Your task to perform on an android device: Search for Italian restaurants on Maps Image 0: 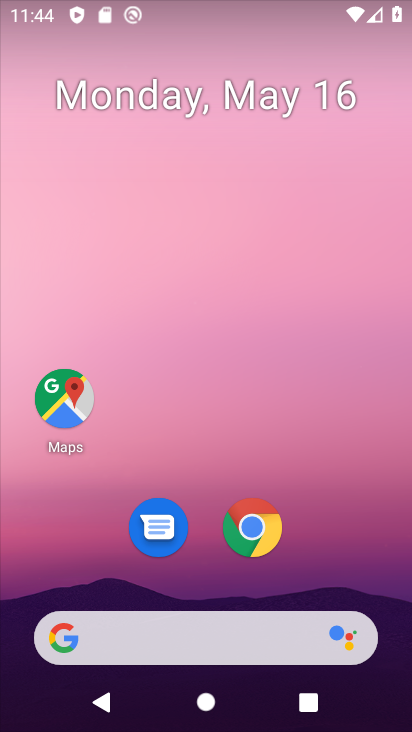
Step 0: press home button
Your task to perform on an android device: Search for Italian restaurants on Maps Image 1: 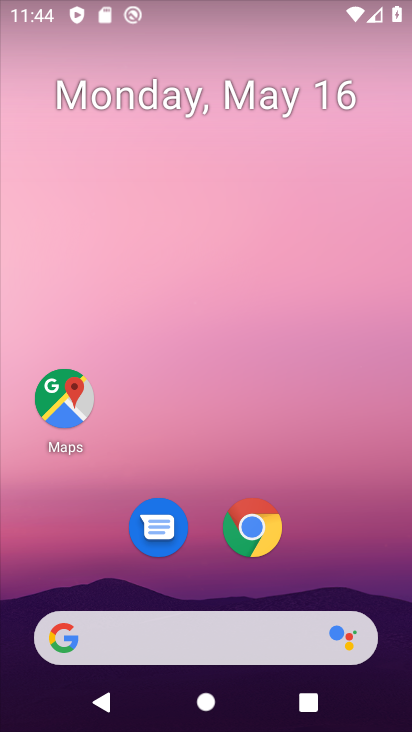
Step 1: click (52, 401)
Your task to perform on an android device: Search for Italian restaurants on Maps Image 2: 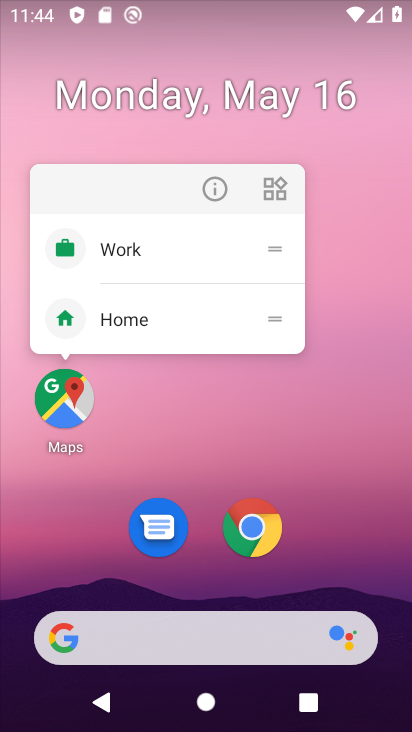
Step 2: click (65, 407)
Your task to perform on an android device: Search for Italian restaurants on Maps Image 3: 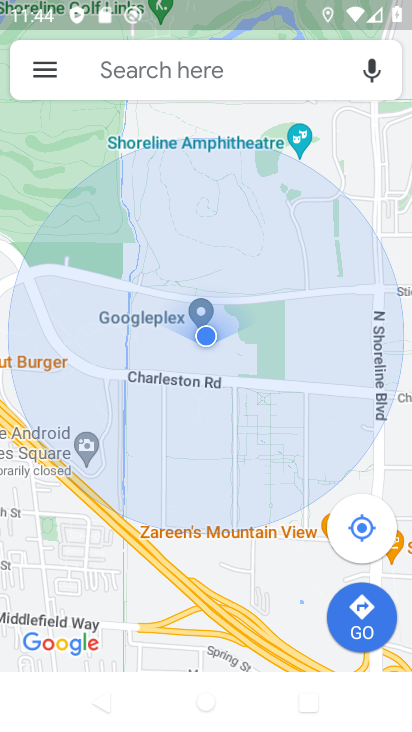
Step 3: click (213, 73)
Your task to perform on an android device: Search for Italian restaurants on Maps Image 4: 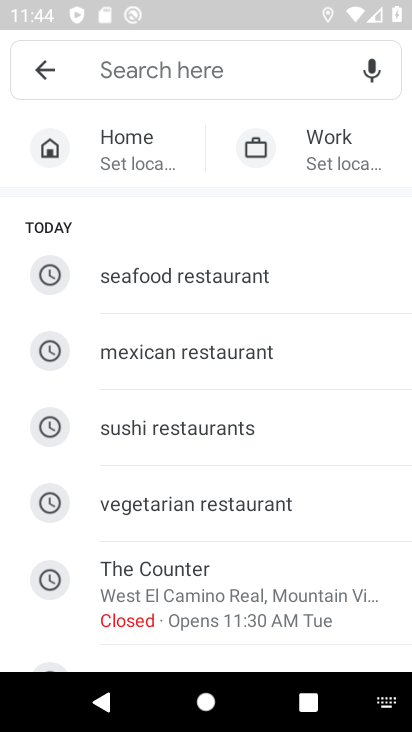
Step 4: drag from (214, 543) to (263, 225)
Your task to perform on an android device: Search for Italian restaurants on Maps Image 5: 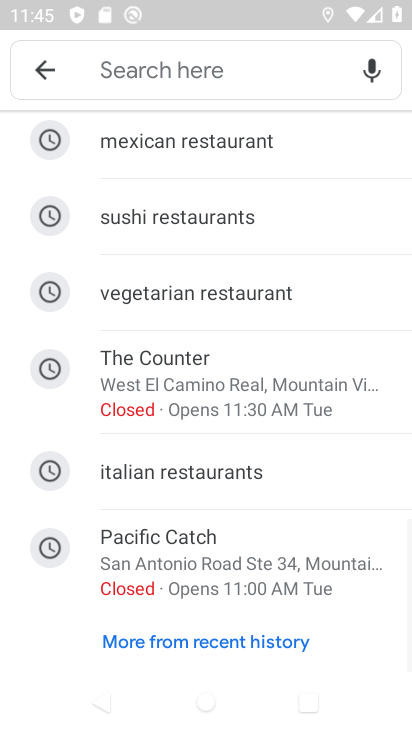
Step 5: click (185, 466)
Your task to perform on an android device: Search for Italian restaurants on Maps Image 6: 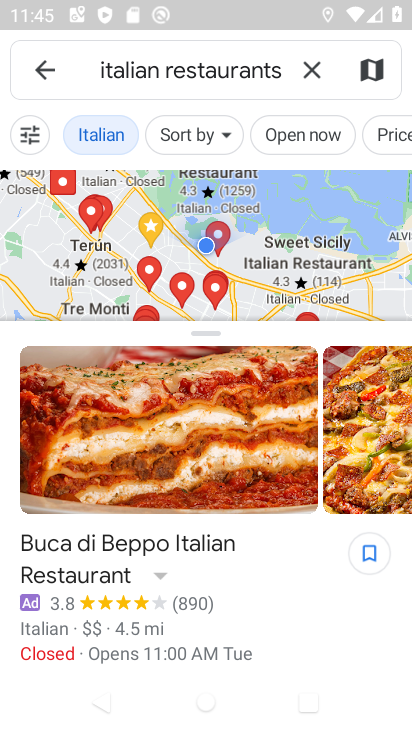
Step 6: task complete